Your task to perform on an android device: Open settings on Google Maps Image 0: 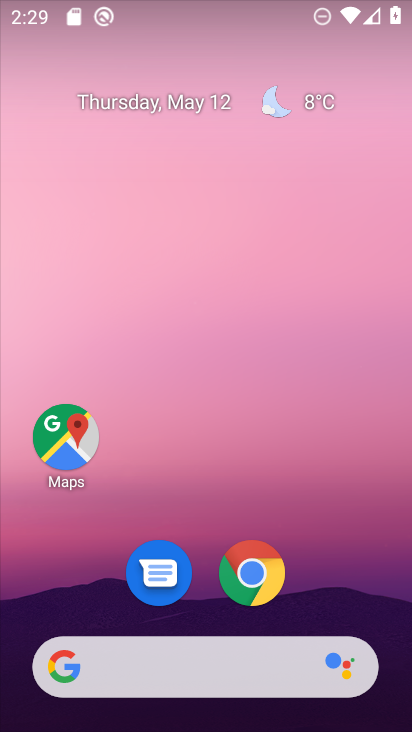
Step 0: drag from (370, 595) to (274, 413)
Your task to perform on an android device: Open settings on Google Maps Image 1: 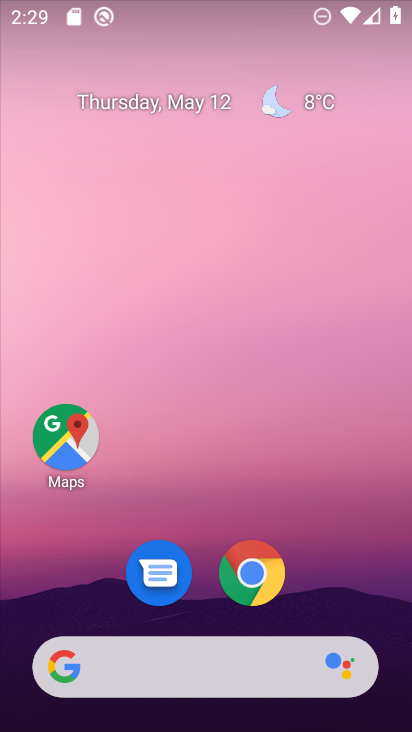
Step 1: drag from (314, 596) to (152, 49)
Your task to perform on an android device: Open settings on Google Maps Image 2: 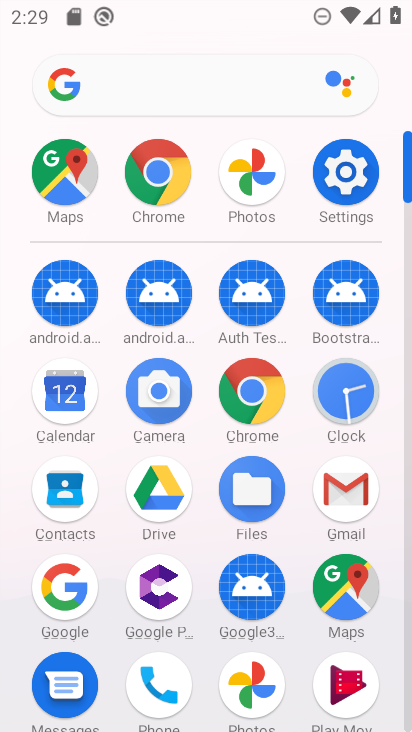
Step 2: click (59, 180)
Your task to perform on an android device: Open settings on Google Maps Image 3: 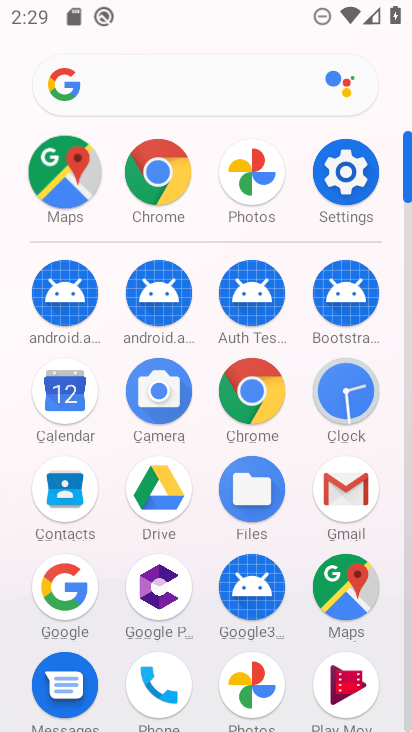
Step 3: click (58, 181)
Your task to perform on an android device: Open settings on Google Maps Image 4: 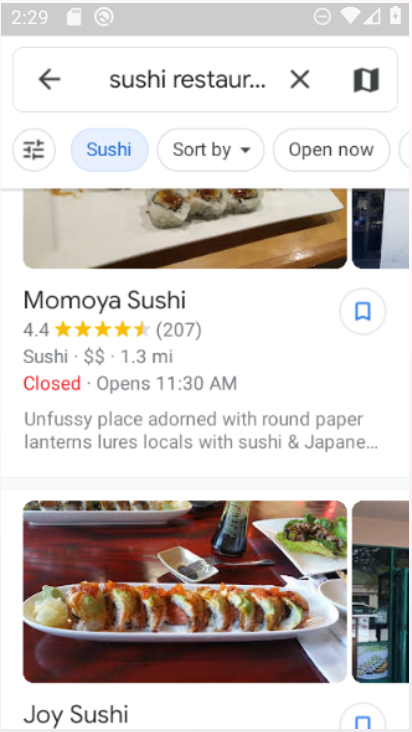
Step 4: click (56, 186)
Your task to perform on an android device: Open settings on Google Maps Image 5: 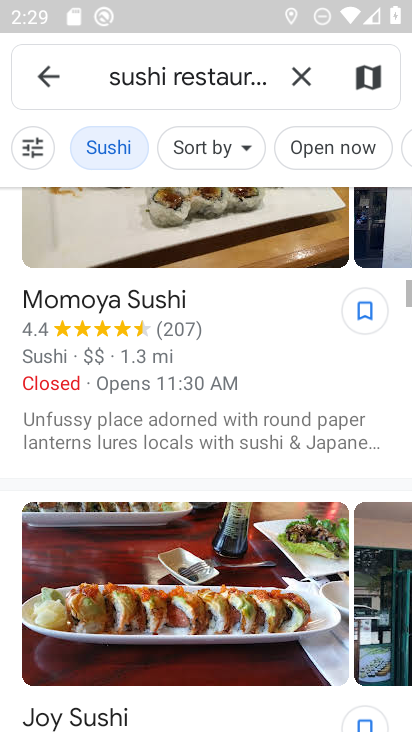
Step 5: click (47, 79)
Your task to perform on an android device: Open settings on Google Maps Image 6: 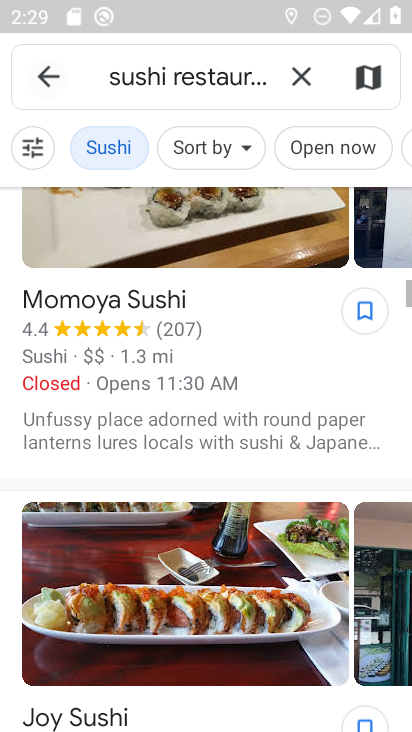
Step 6: click (45, 74)
Your task to perform on an android device: Open settings on Google Maps Image 7: 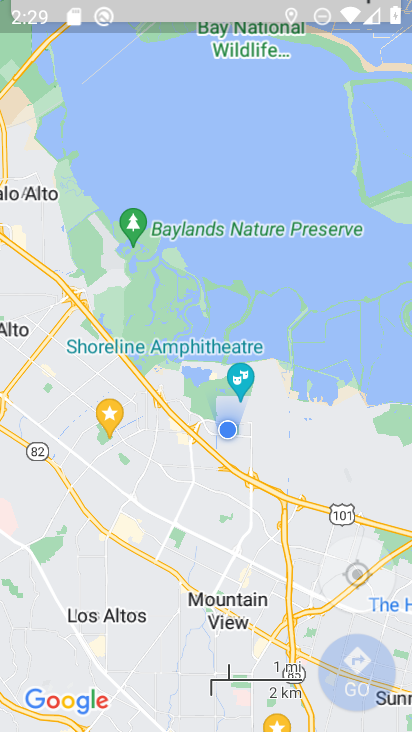
Step 7: click (45, 74)
Your task to perform on an android device: Open settings on Google Maps Image 8: 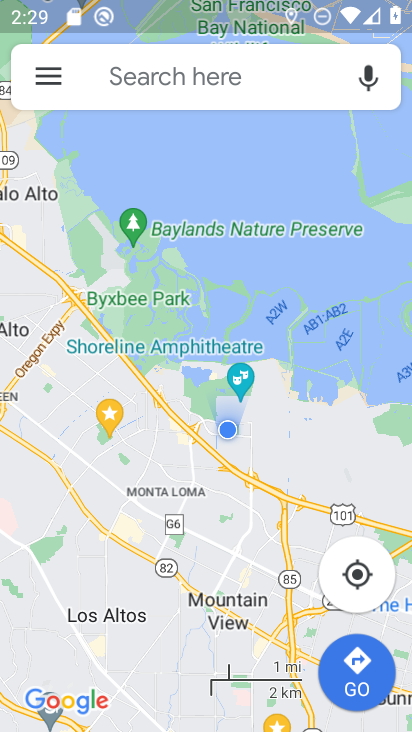
Step 8: click (52, 75)
Your task to perform on an android device: Open settings on Google Maps Image 9: 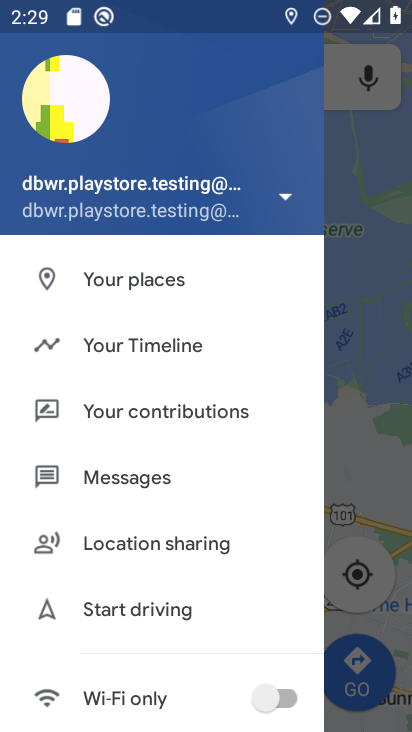
Step 9: click (334, 336)
Your task to perform on an android device: Open settings on Google Maps Image 10: 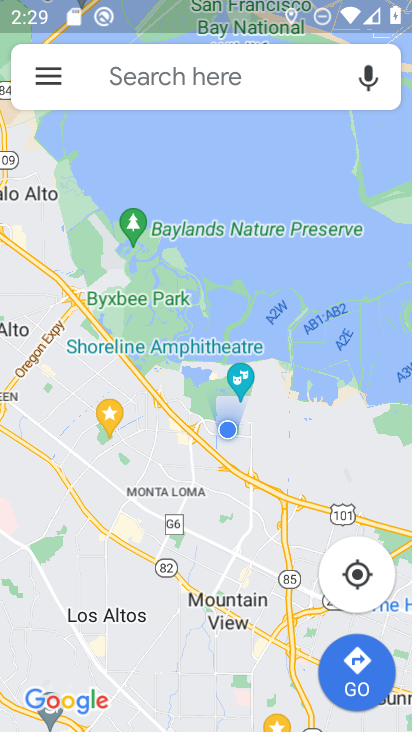
Step 10: click (51, 71)
Your task to perform on an android device: Open settings on Google Maps Image 11: 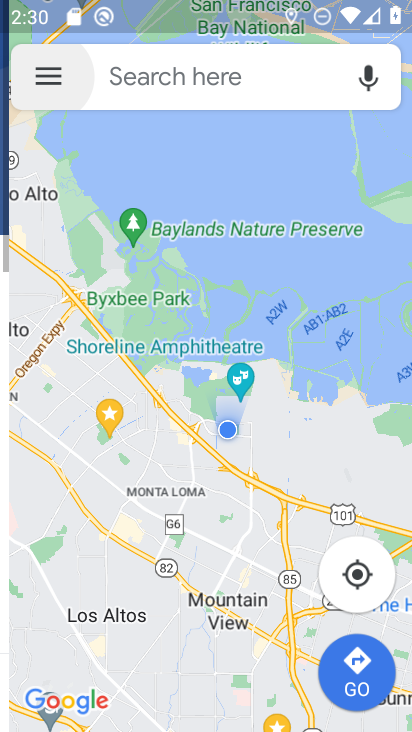
Step 11: click (52, 74)
Your task to perform on an android device: Open settings on Google Maps Image 12: 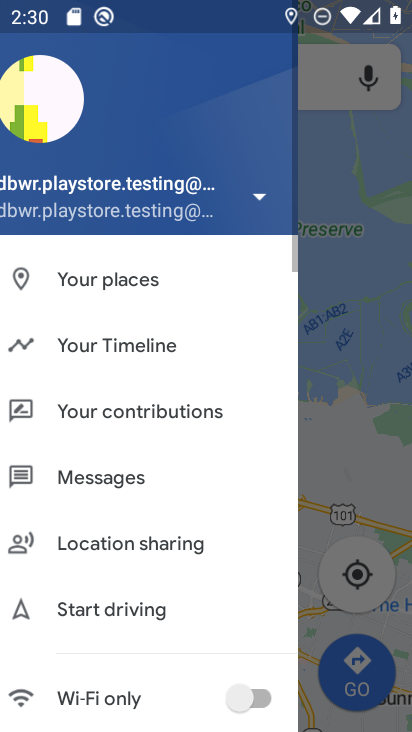
Step 12: click (52, 74)
Your task to perform on an android device: Open settings on Google Maps Image 13: 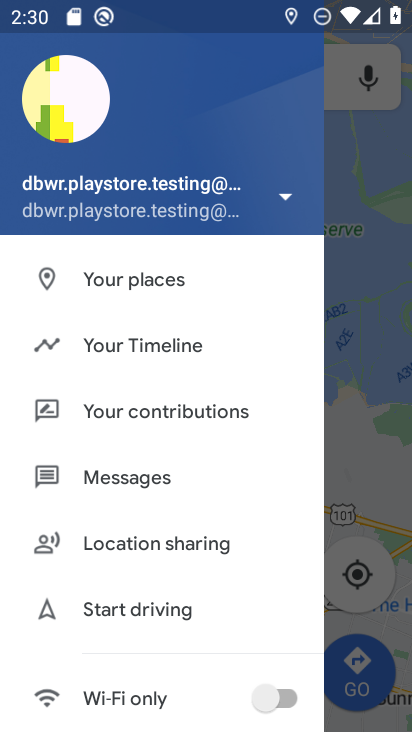
Step 13: click (152, 347)
Your task to perform on an android device: Open settings on Google Maps Image 14: 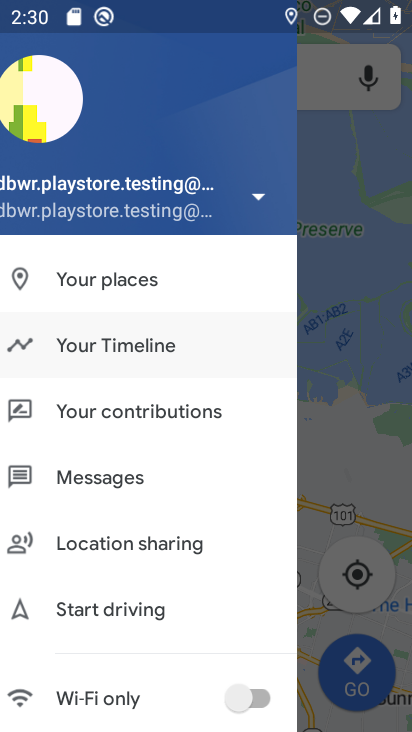
Step 14: click (151, 340)
Your task to perform on an android device: Open settings on Google Maps Image 15: 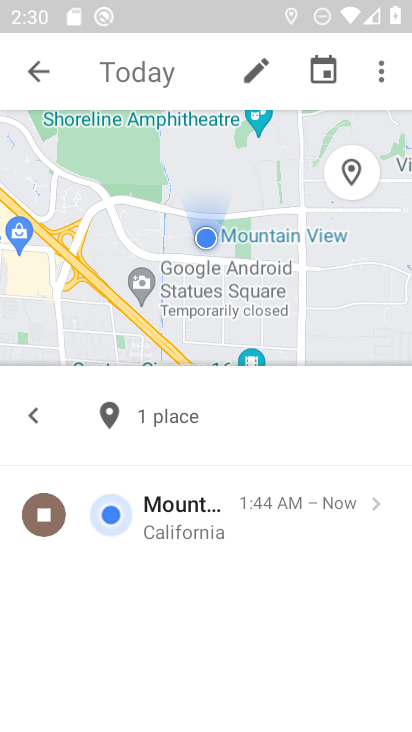
Step 15: click (387, 69)
Your task to perform on an android device: Open settings on Google Maps Image 16: 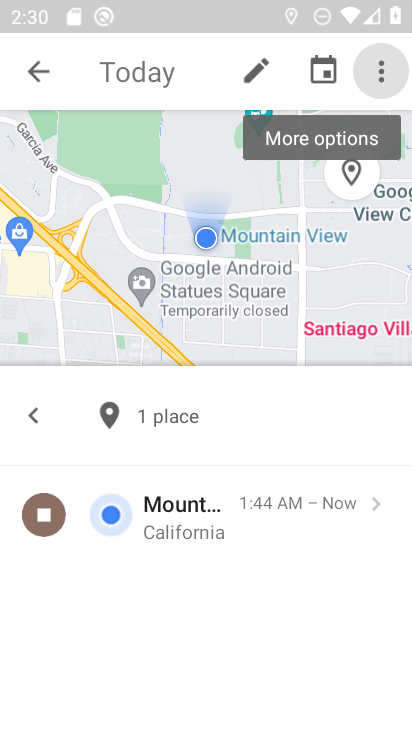
Step 16: click (376, 75)
Your task to perform on an android device: Open settings on Google Maps Image 17: 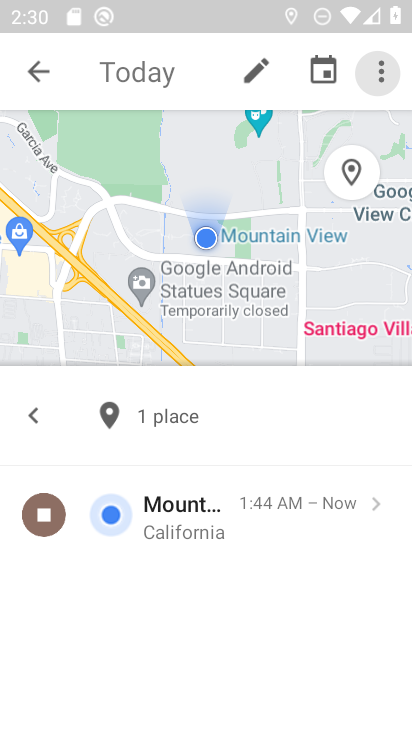
Step 17: click (376, 76)
Your task to perform on an android device: Open settings on Google Maps Image 18: 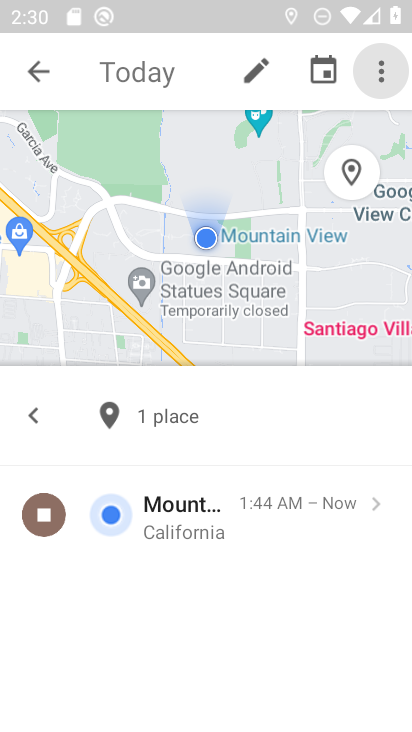
Step 18: click (374, 77)
Your task to perform on an android device: Open settings on Google Maps Image 19: 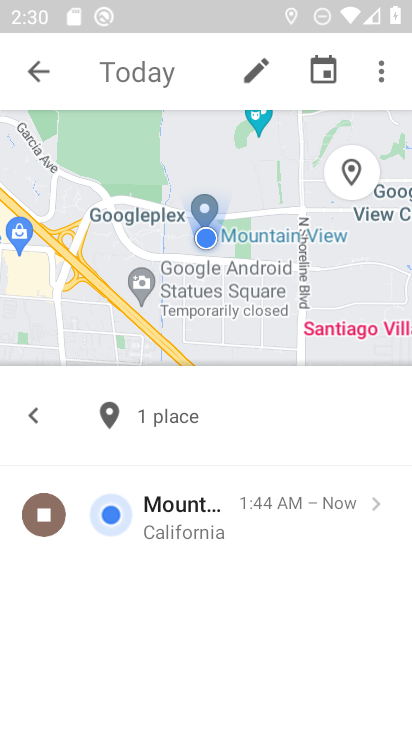
Step 19: click (217, 467)
Your task to perform on an android device: Open settings on Google Maps Image 20: 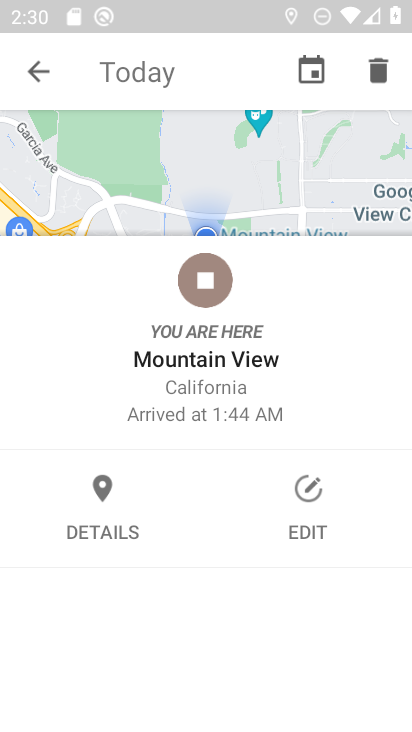
Step 20: click (372, 78)
Your task to perform on an android device: Open settings on Google Maps Image 21: 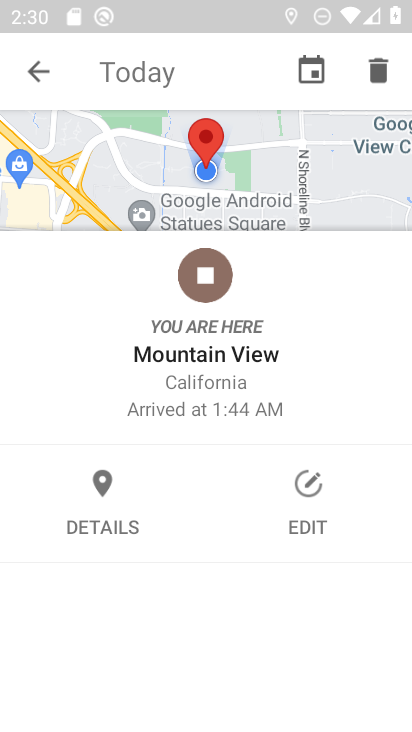
Step 21: click (377, 67)
Your task to perform on an android device: Open settings on Google Maps Image 22: 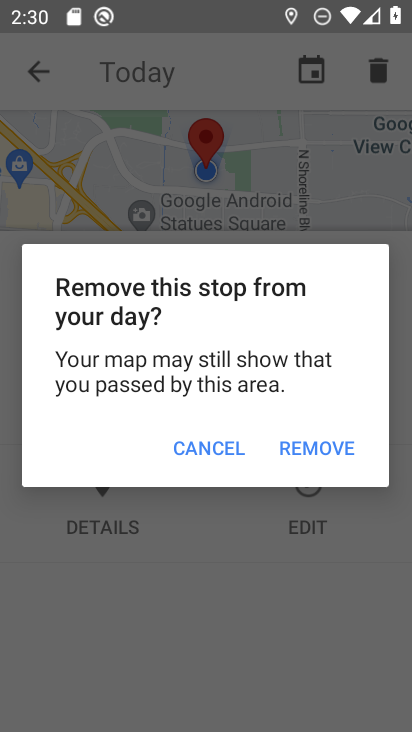
Step 22: click (293, 444)
Your task to perform on an android device: Open settings on Google Maps Image 23: 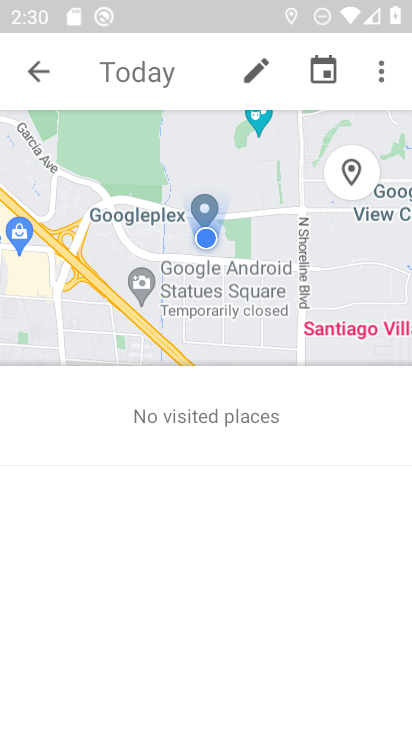
Step 23: drag from (380, 62) to (347, 118)
Your task to perform on an android device: Open settings on Google Maps Image 24: 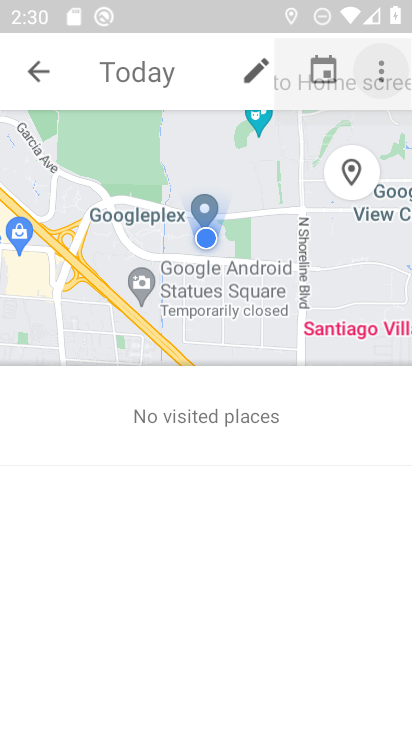
Step 24: drag from (365, 71) to (176, 480)
Your task to perform on an android device: Open settings on Google Maps Image 25: 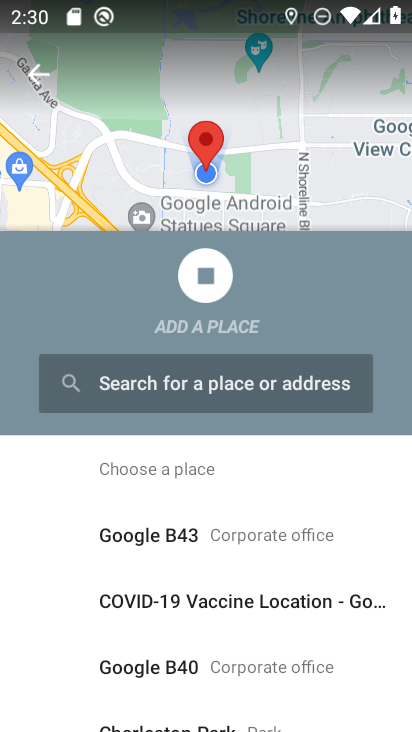
Step 25: click (44, 85)
Your task to perform on an android device: Open settings on Google Maps Image 26: 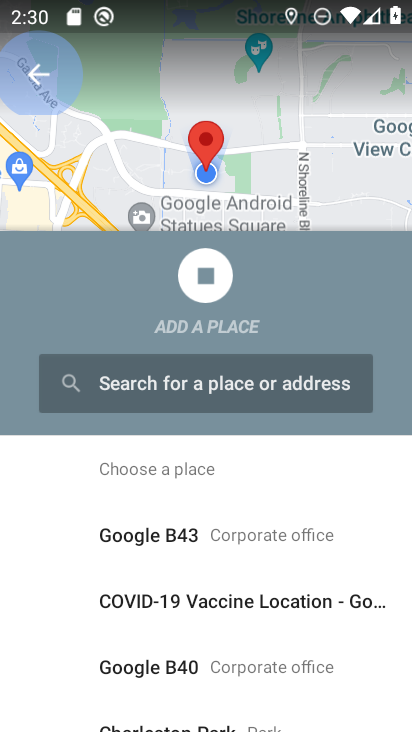
Step 26: click (33, 72)
Your task to perform on an android device: Open settings on Google Maps Image 27: 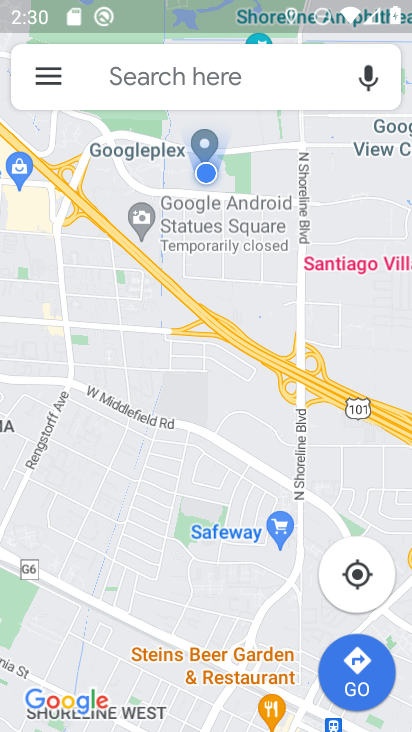
Step 27: click (123, 84)
Your task to perform on an android device: Open settings on Google Maps Image 28: 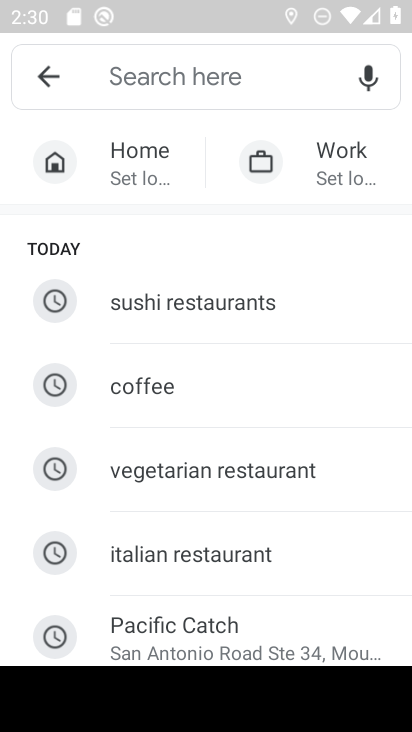
Step 28: drag from (187, 463) to (79, 123)
Your task to perform on an android device: Open settings on Google Maps Image 29: 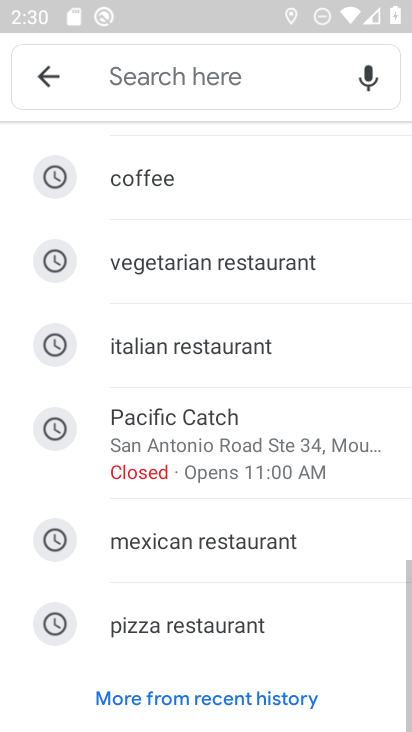
Step 29: click (50, 78)
Your task to perform on an android device: Open settings on Google Maps Image 30: 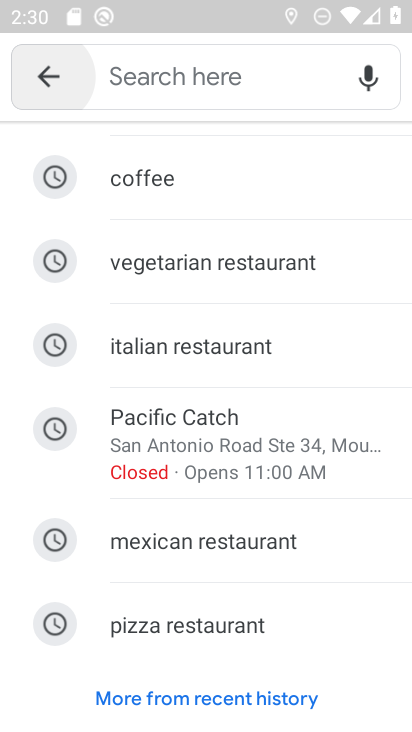
Step 30: click (42, 78)
Your task to perform on an android device: Open settings on Google Maps Image 31: 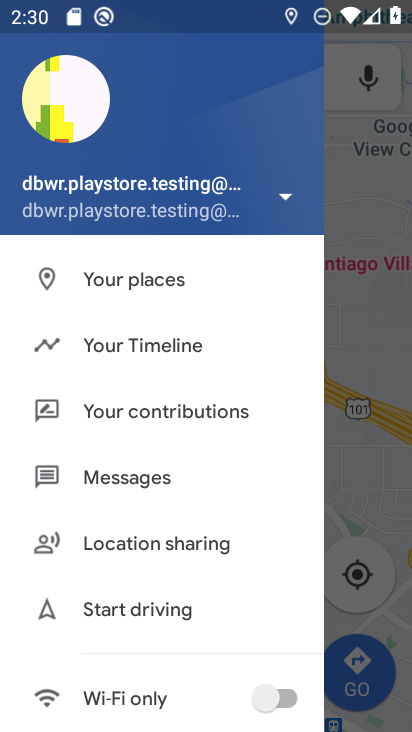
Step 31: click (369, 301)
Your task to perform on an android device: Open settings on Google Maps Image 32: 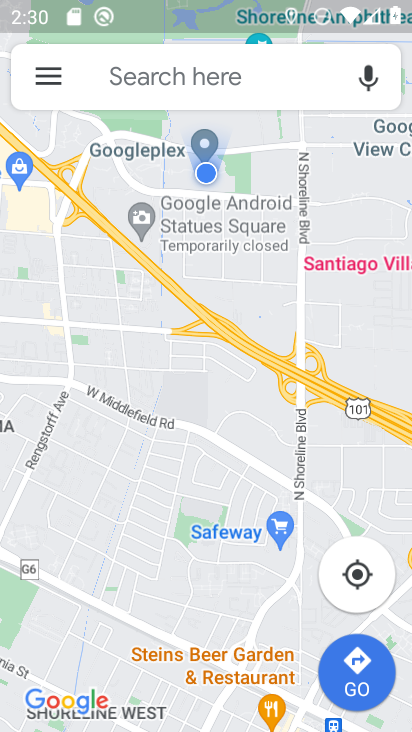
Step 32: task complete